Your task to perform on an android device: turn pop-ups off in chrome Image 0: 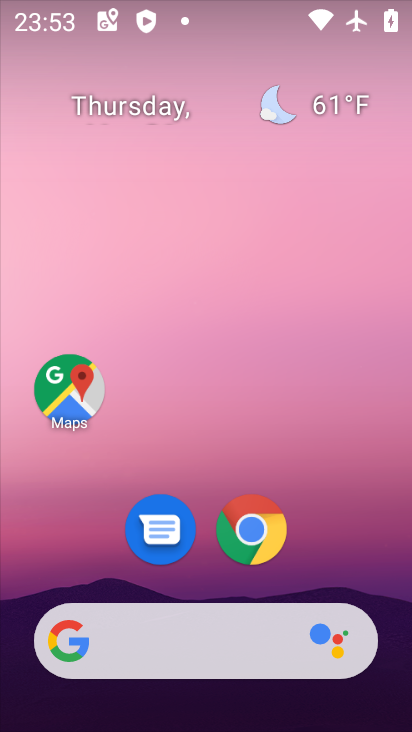
Step 0: click (263, 531)
Your task to perform on an android device: turn pop-ups off in chrome Image 1: 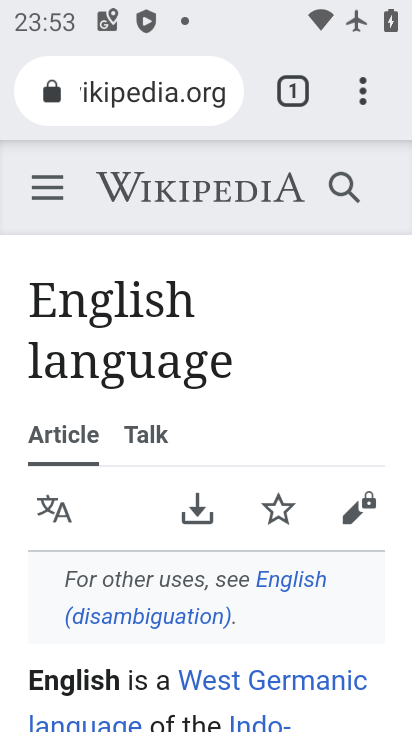
Step 1: click (369, 92)
Your task to perform on an android device: turn pop-ups off in chrome Image 2: 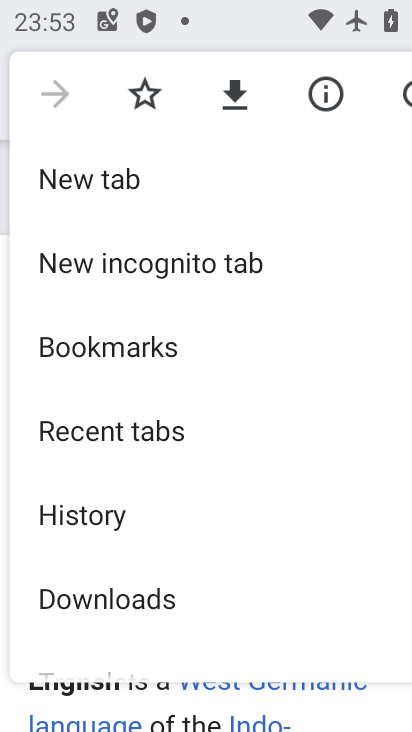
Step 2: drag from (250, 543) to (258, 204)
Your task to perform on an android device: turn pop-ups off in chrome Image 3: 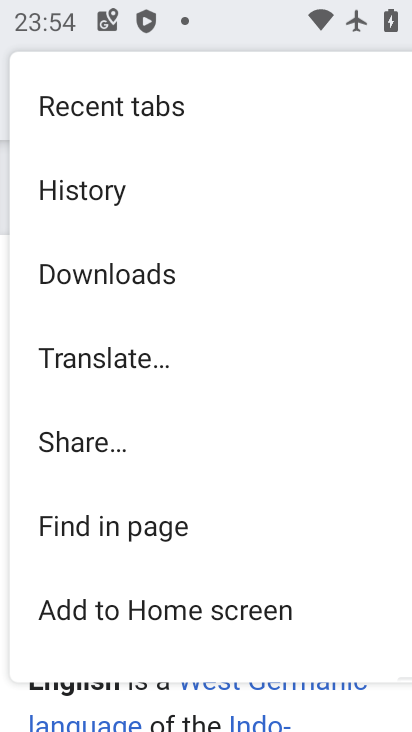
Step 3: drag from (151, 524) to (137, 259)
Your task to perform on an android device: turn pop-ups off in chrome Image 4: 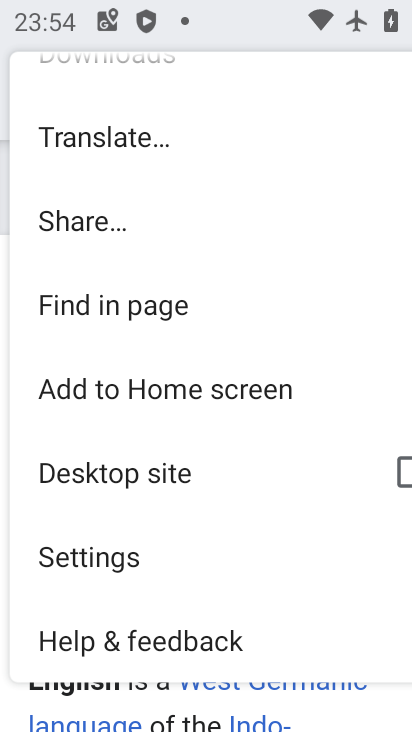
Step 4: click (200, 561)
Your task to perform on an android device: turn pop-ups off in chrome Image 5: 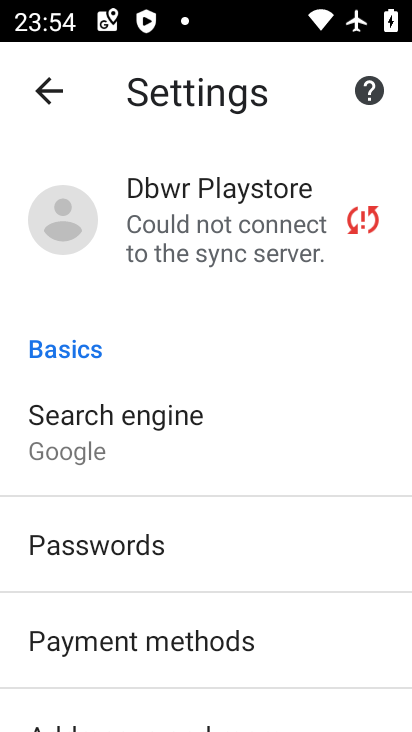
Step 5: task complete